Your task to perform on an android device: set the timer Image 0: 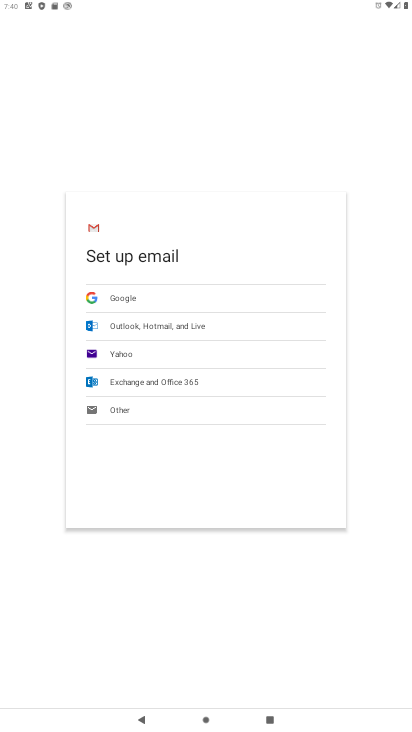
Step 0: press home button
Your task to perform on an android device: set the timer Image 1: 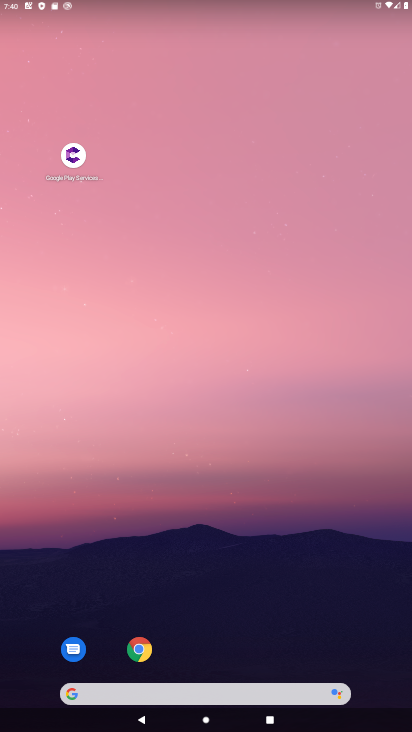
Step 1: drag from (204, 636) to (223, 25)
Your task to perform on an android device: set the timer Image 2: 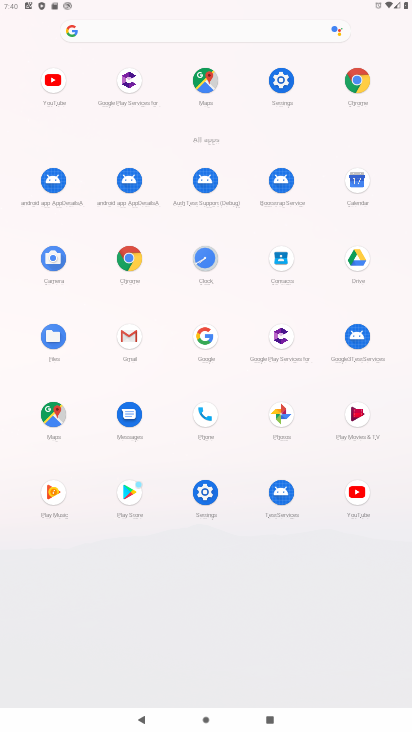
Step 2: click (202, 257)
Your task to perform on an android device: set the timer Image 3: 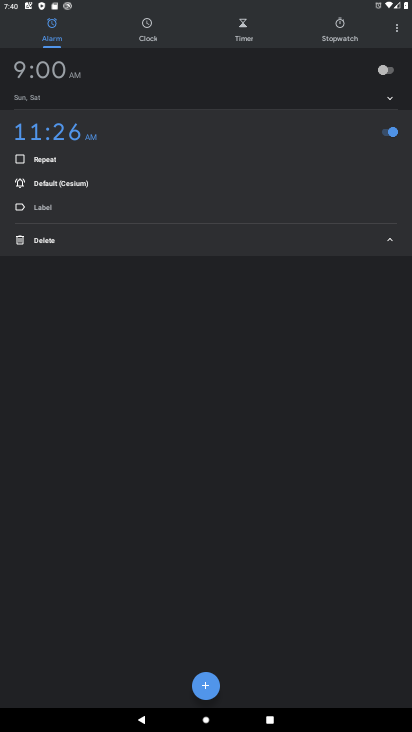
Step 3: click (247, 37)
Your task to perform on an android device: set the timer Image 4: 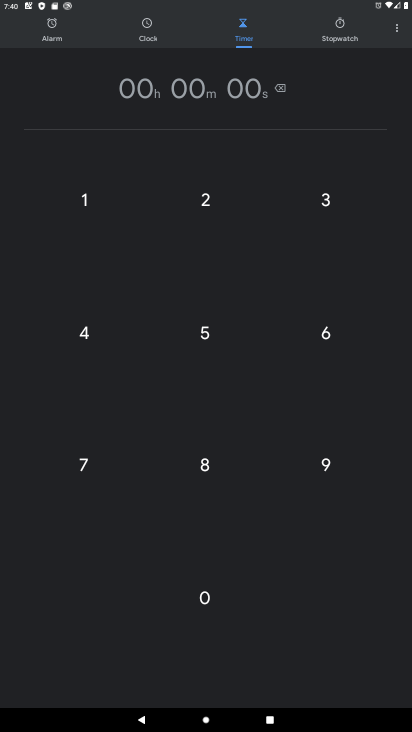
Step 4: click (205, 466)
Your task to perform on an android device: set the timer Image 5: 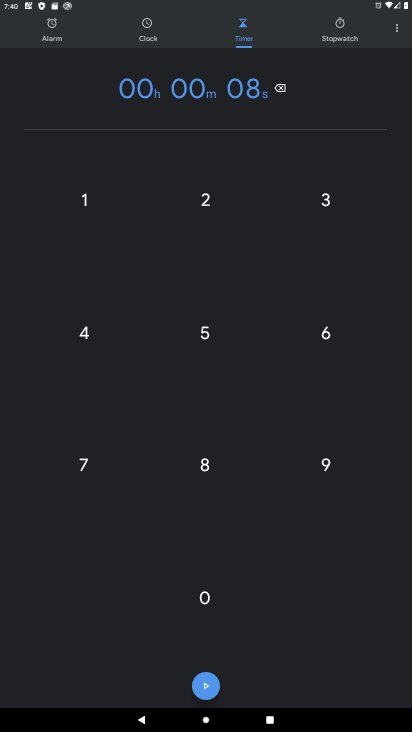
Step 5: click (82, 332)
Your task to perform on an android device: set the timer Image 6: 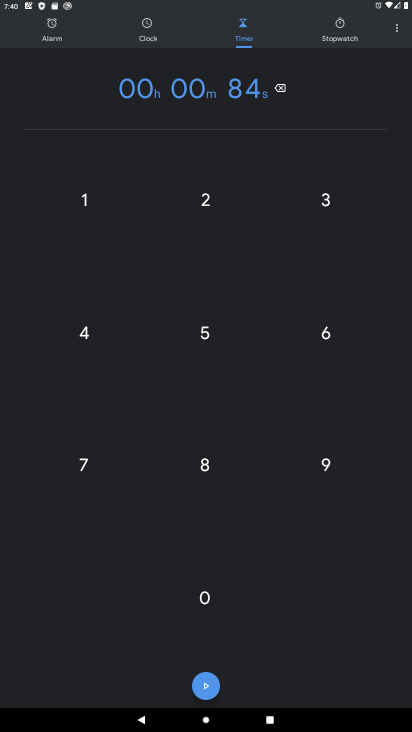
Step 6: click (324, 338)
Your task to perform on an android device: set the timer Image 7: 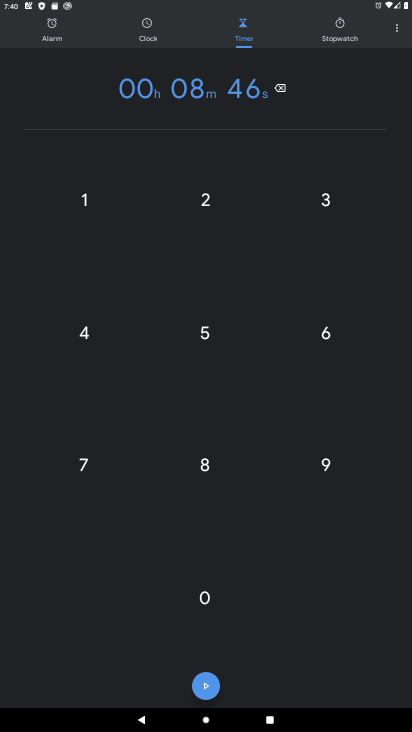
Step 7: click (204, 681)
Your task to perform on an android device: set the timer Image 8: 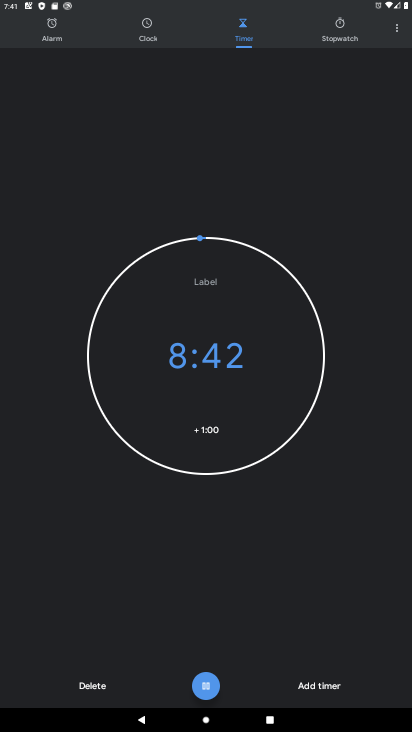
Step 8: task complete